Your task to perform on an android device: Show me recent news Image 0: 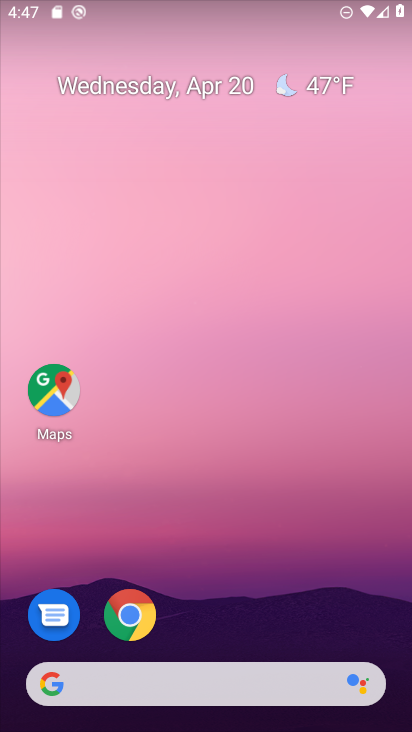
Step 0: drag from (288, 593) to (282, 42)
Your task to perform on an android device: Show me recent news Image 1: 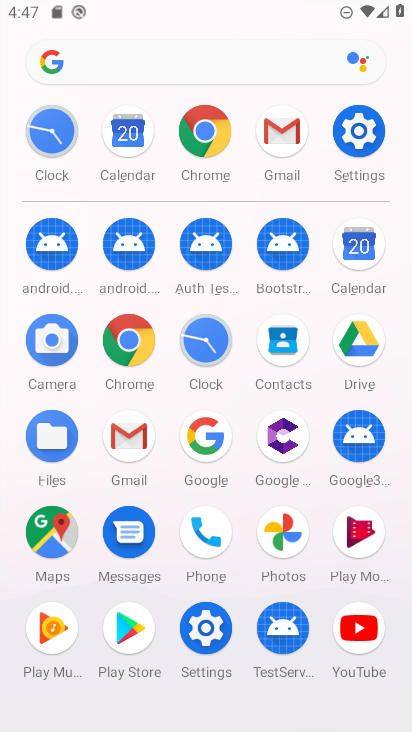
Step 1: click (138, 337)
Your task to perform on an android device: Show me recent news Image 2: 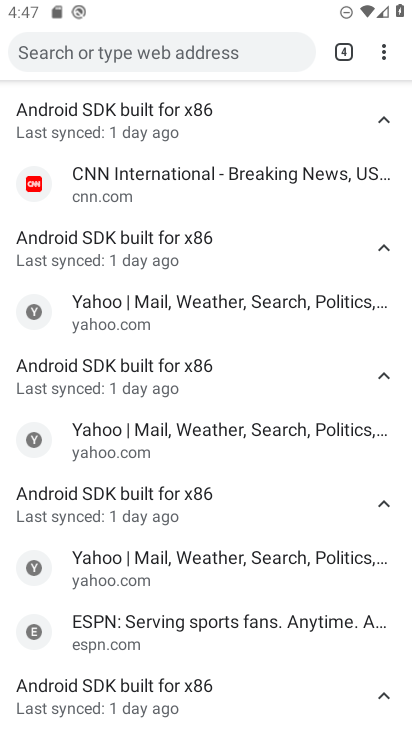
Step 2: click (342, 50)
Your task to perform on an android device: Show me recent news Image 3: 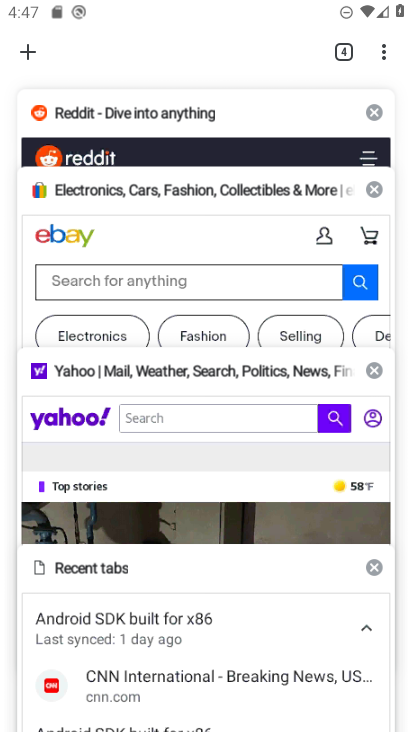
Step 3: click (23, 47)
Your task to perform on an android device: Show me recent news Image 4: 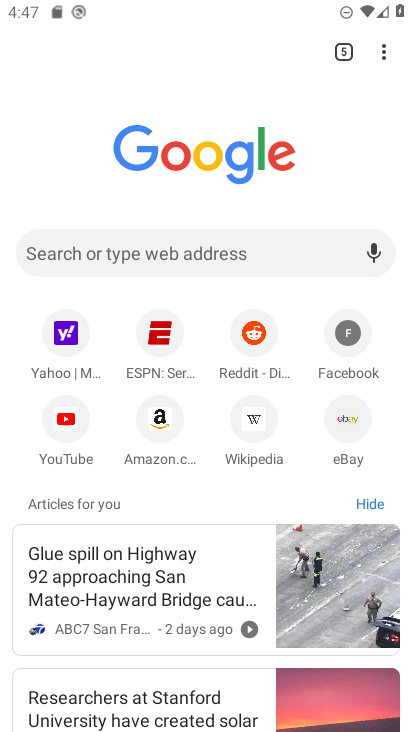
Step 4: click (180, 251)
Your task to perform on an android device: Show me recent news Image 5: 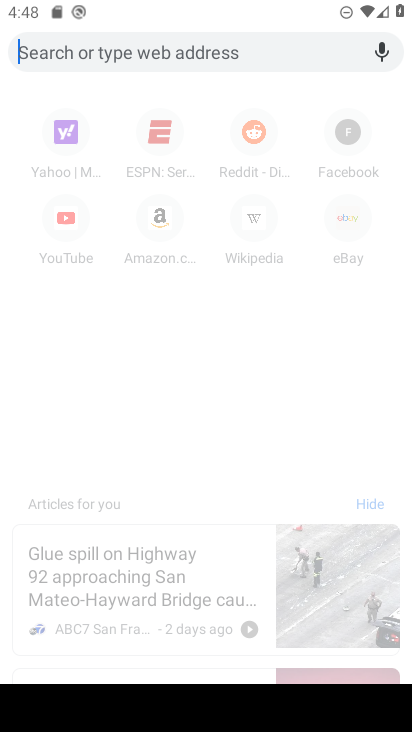
Step 5: type "recent news"
Your task to perform on an android device: Show me recent news Image 6: 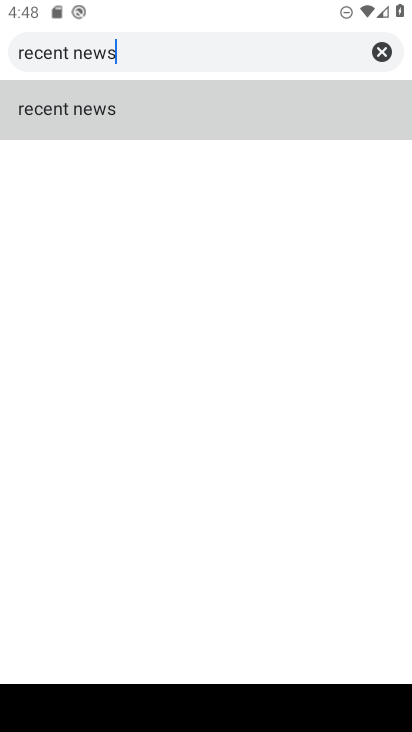
Step 6: click (110, 116)
Your task to perform on an android device: Show me recent news Image 7: 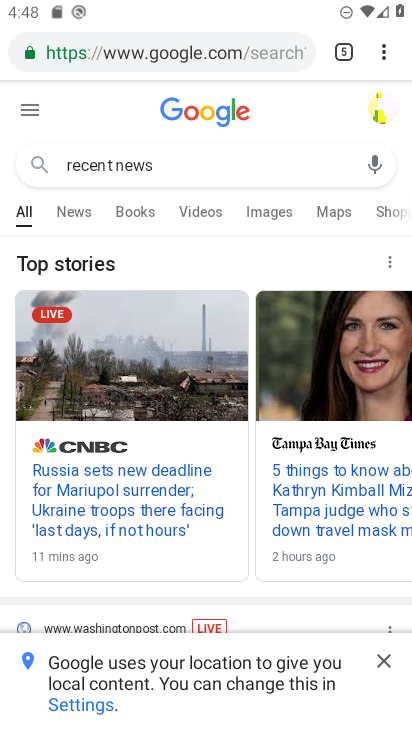
Step 7: drag from (339, 577) to (315, 390)
Your task to perform on an android device: Show me recent news Image 8: 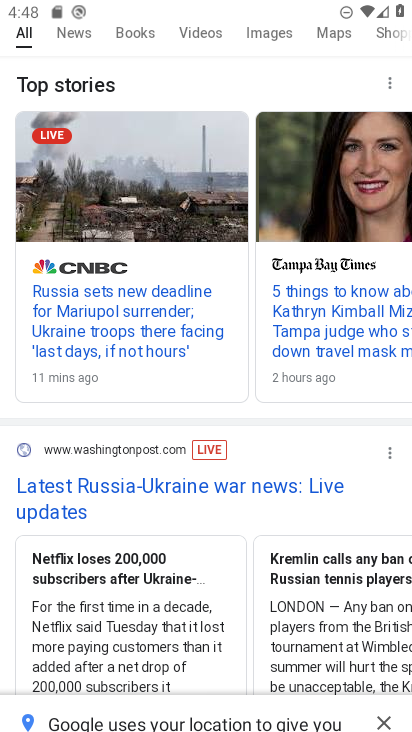
Step 8: drag from (366, 263) to (24, 288)
Your task to perform on an android device: Show me recent news Image 9: 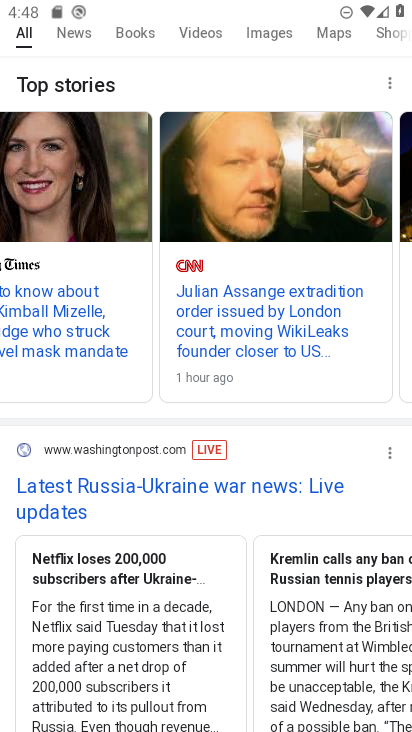
Step 9: click (369, 306)
Your task to perform on an android device: Show me recent news Image 10: 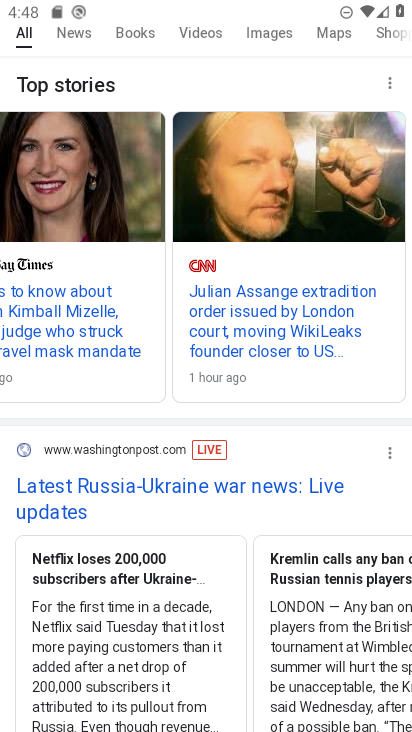
Step 10: drag from (307, 520) to (308, 215)
Your task to perform on an android device: Show me recent news Image 11: 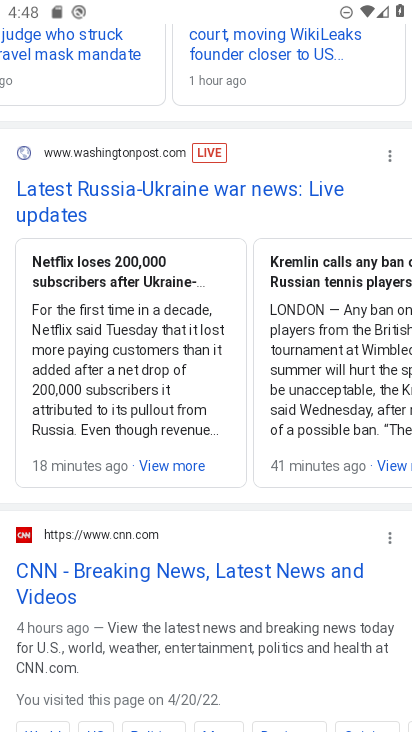
Step 11: drag from (275, 575) to (289, 326)
Your task to perform on an android device: Show me recent news Image 12: 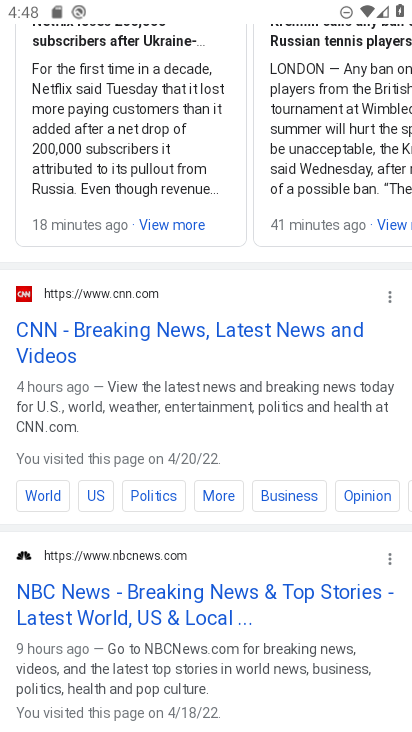
Step 12: click (243, 321)
Your task to perform on an android device: Show me recent news Image 13: 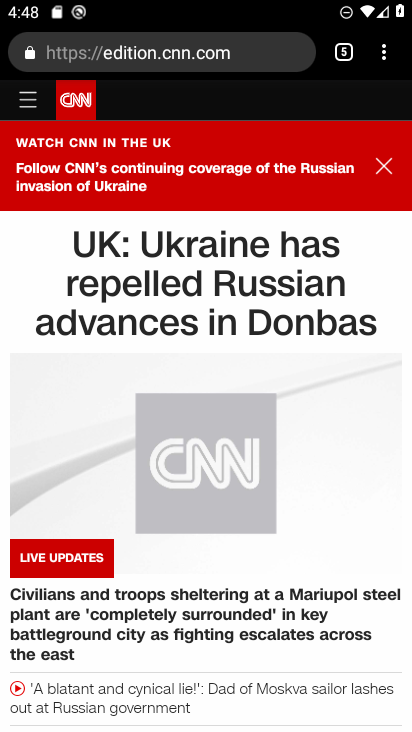
Step 13: task complete